Your task to perform on an android device: Go to internet settings Image 0: 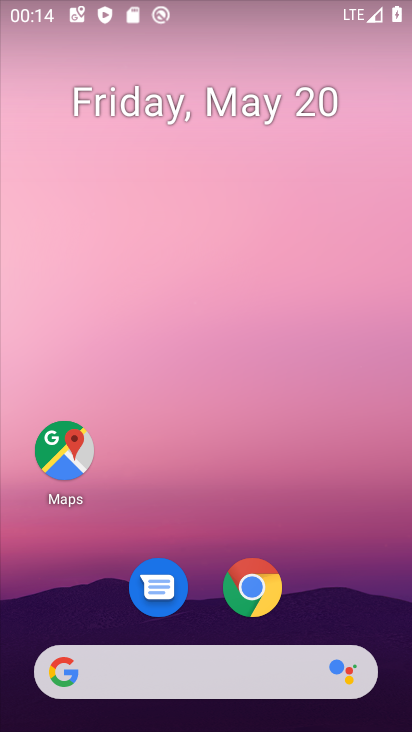
Step 0: drag from (207, 717) to (189, 127)
Your task to perform on an android device: Go to internet settings Image 1: 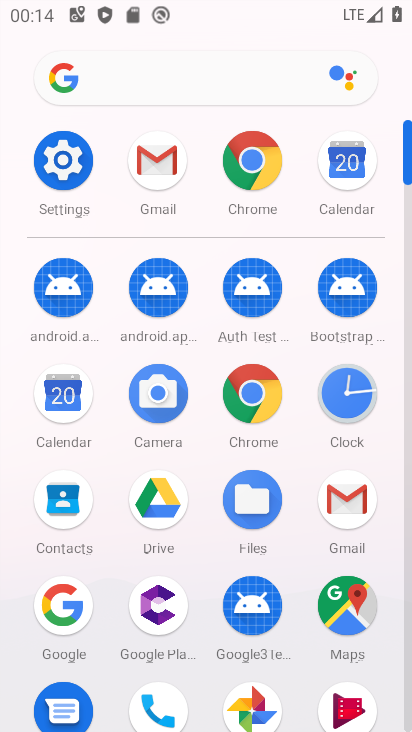
Step 1: click (69, 168)
Your task to perform on an android device: Go to internet settings Image 2: 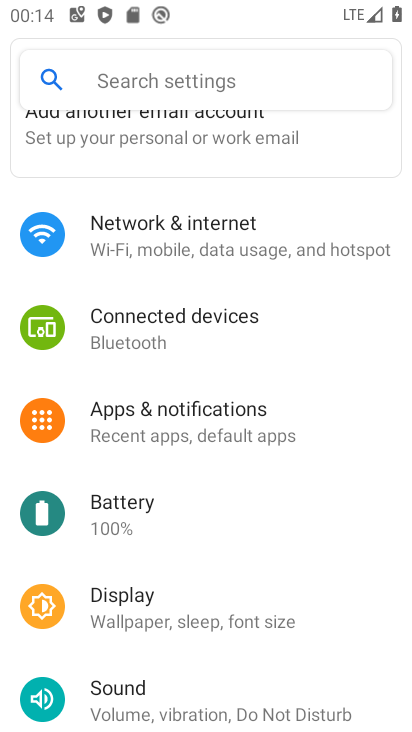
Step 2: click (99, 64)
Your task to perform on an android device: Go to internet settings Image 3: 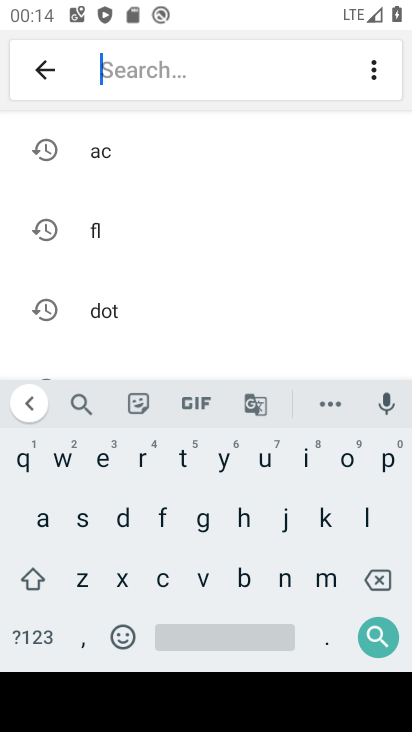
Step 3: click (38, 69)
Your task to perform on an android device: Go to internet settings Image 4: 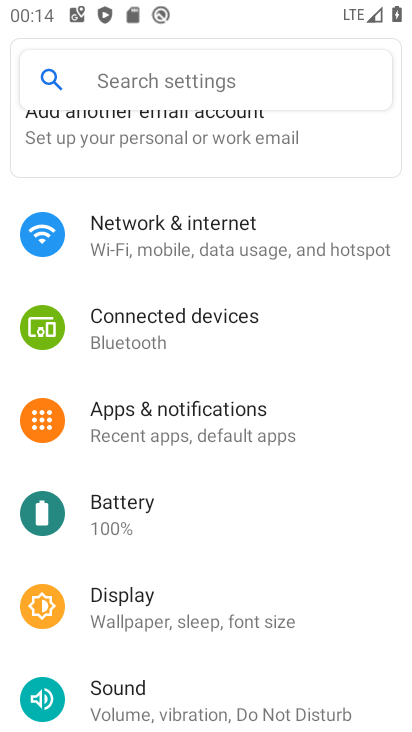
Step 4: click (192, 224)
Your task to perform on an android device: Go to internet settings Image 5: 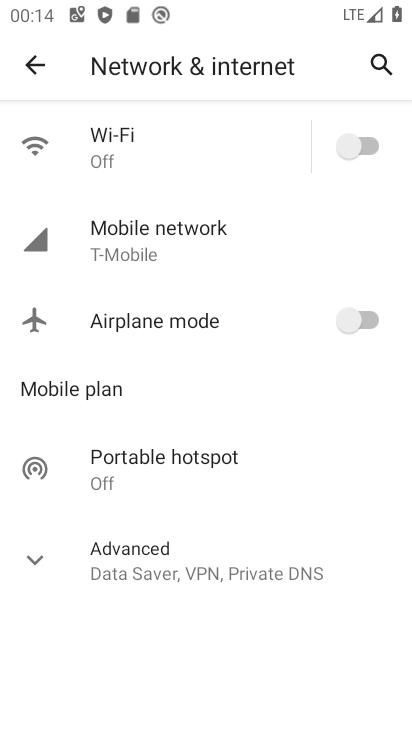
Step 5: task complete